Your task to perform on an android device: turn on improve location accuracy Image 0: 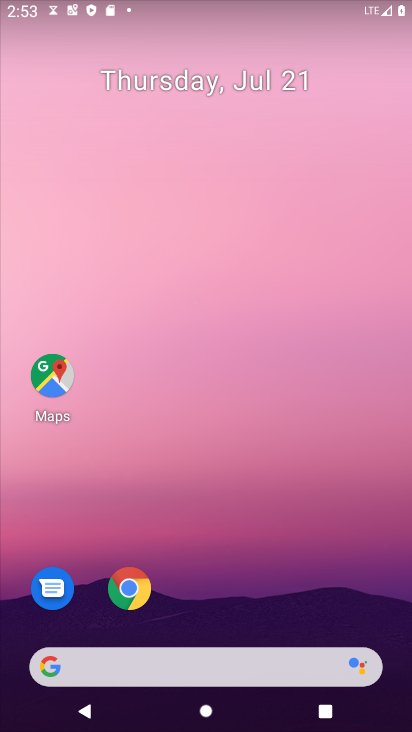
Step 0: drag from (194, 591) to (324, 1)
Your task to perform on an android device: turn on improve location accuracy Image 1: 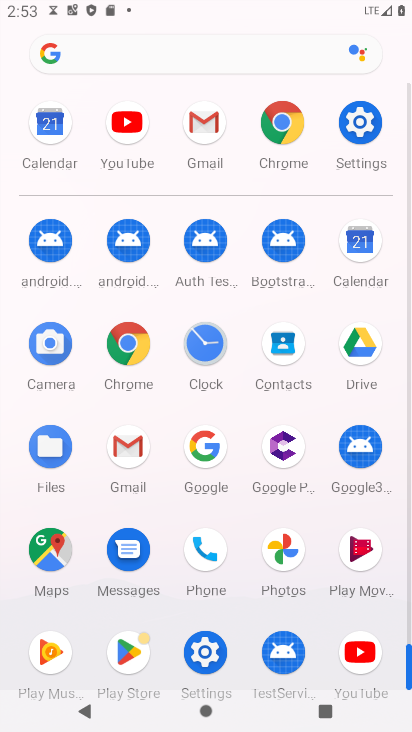
Step 1: click (364, 124)
Your task to perform on an android device: turn on improve location accuracy Image 2: 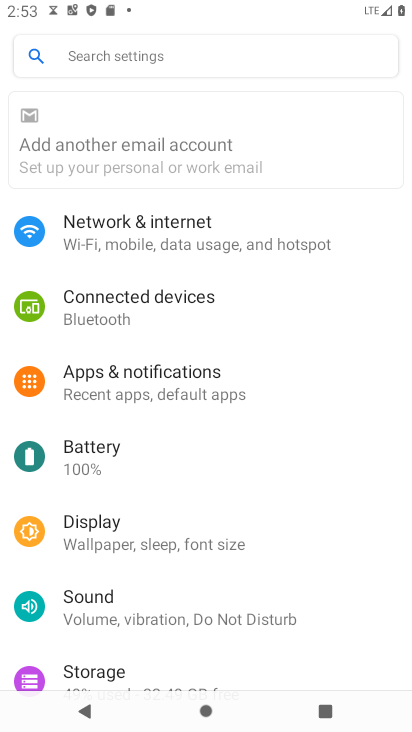
Step 2: drag from (191, 598) to (239, 147)
Your task to perform on an android device: turn on improve location accuracy Image 3: 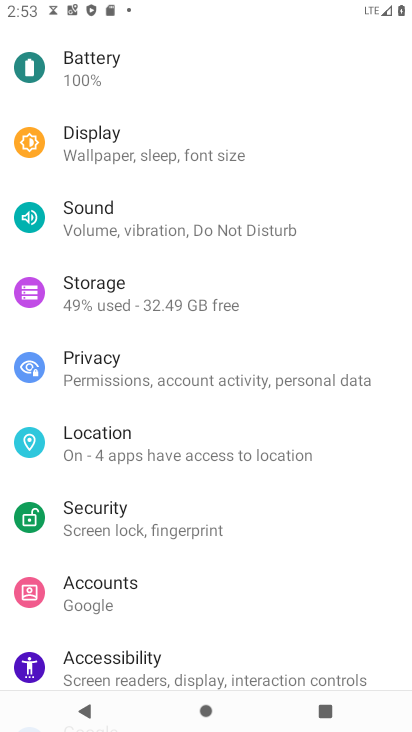
Step 3: click (137, 454)
Your task to perform on an android device: turn on improve location accuracy Image 4: 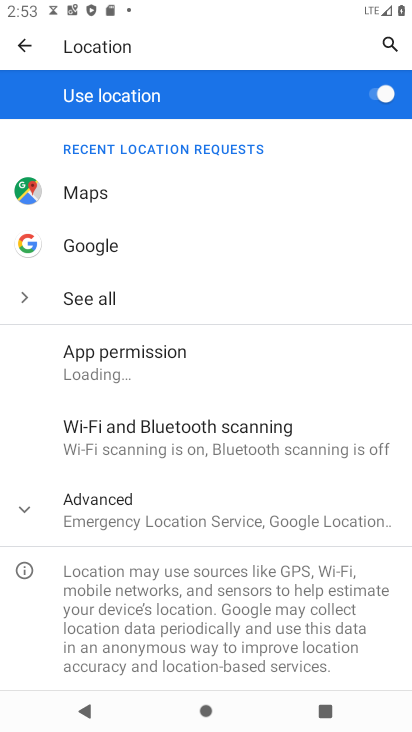
Step 4: click (132, 512)
Your task to perform on an android device: turn on improve location accuracy Image 5: 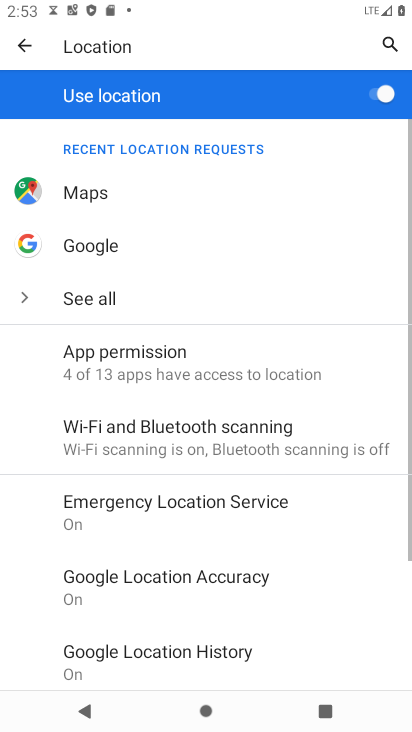
Step 5: click (187, 578)
Your task to perform on an android device: turn on improve location accuracy Image 6: 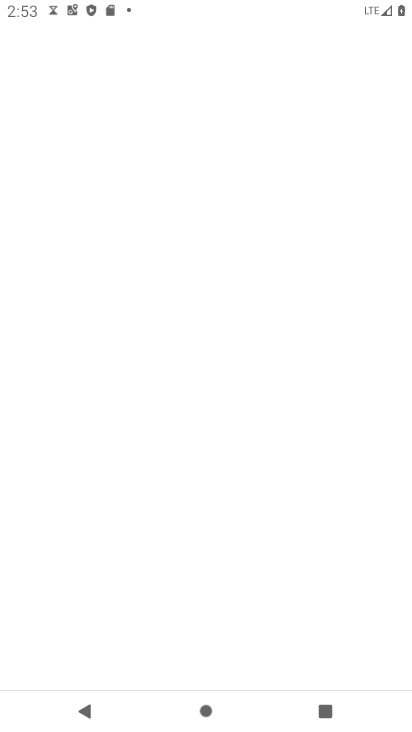
Step 6: task complete